Your task to perform on an android device: toggle notifications settings in the gmail app Image 0: 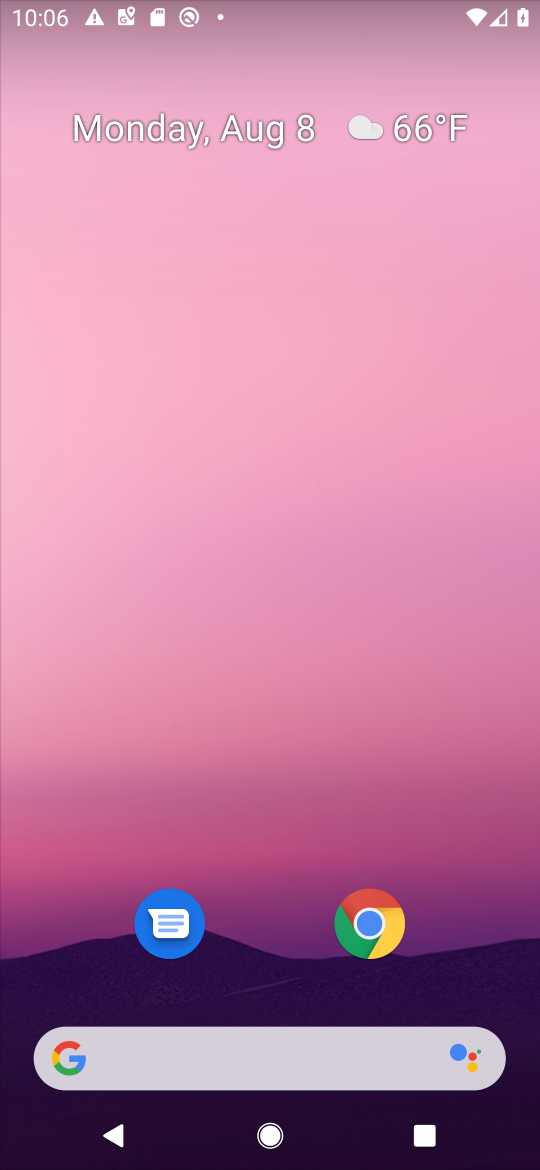
Step 0: drag from (31, 1117) to (295, 368)
Your task to perform on an android device: toggle notifications settings in the gmail app Image 1: 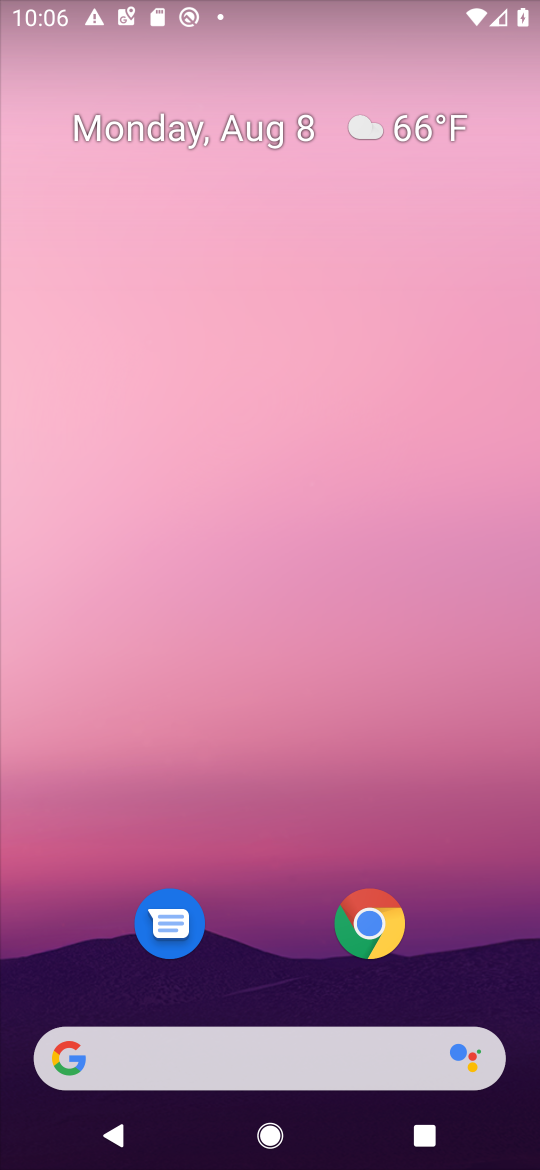
Step 1: drag from (59, 1093) to (255, 174)
Your task to perform on an android device: toggle notifications settings in the gmail app Image 2: 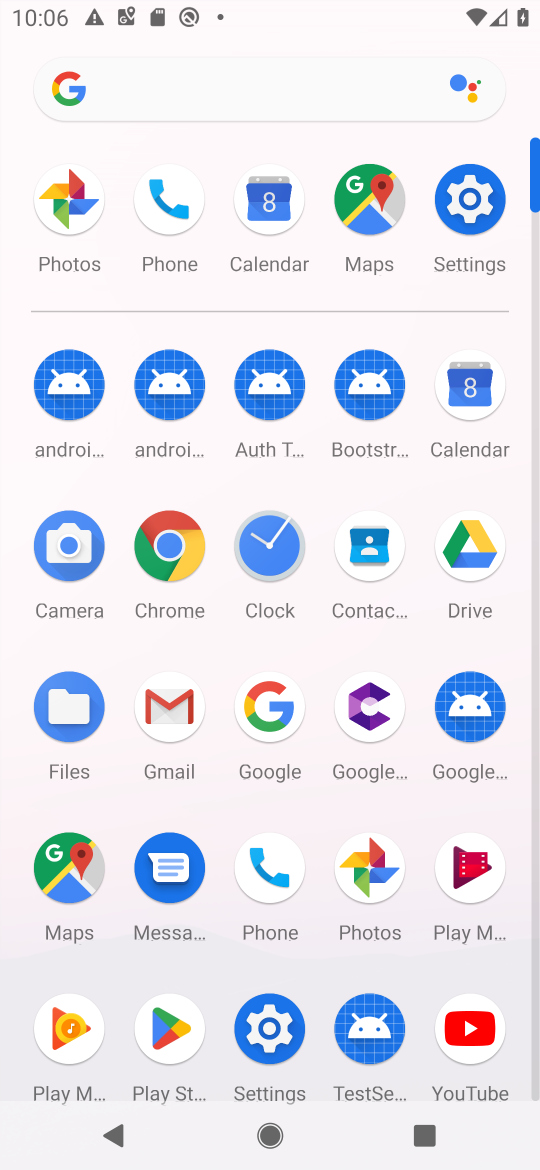
Step 2: click (185, 739)
Your task to perform on an android device: toggle notifications settings in the gmail app Image 3: 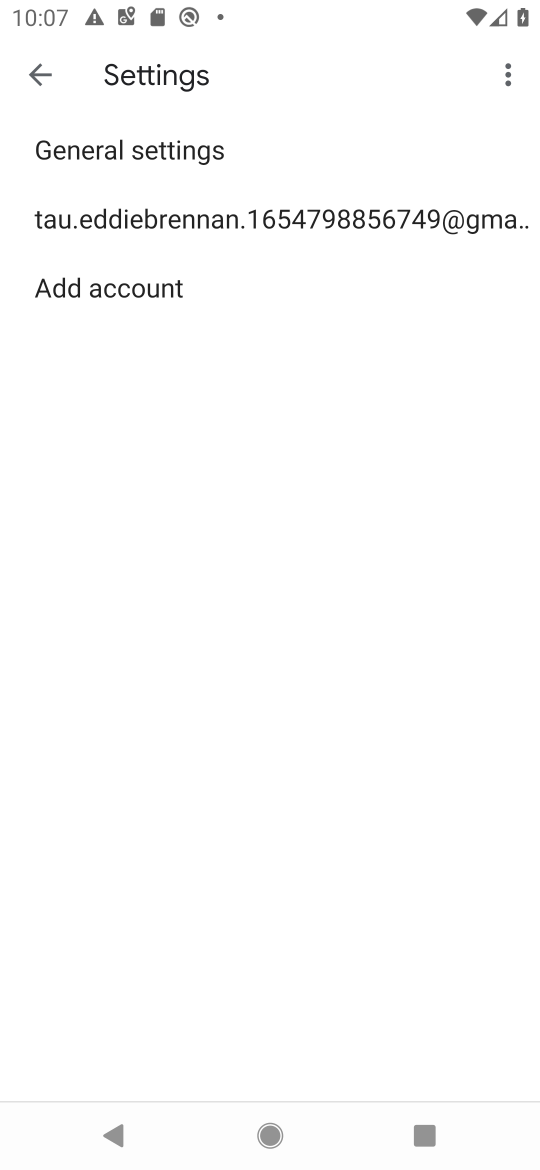
Step 3: click (96, 152)
Your task to perform on an android device: toggle notifications settings in the gmail app Image 4: 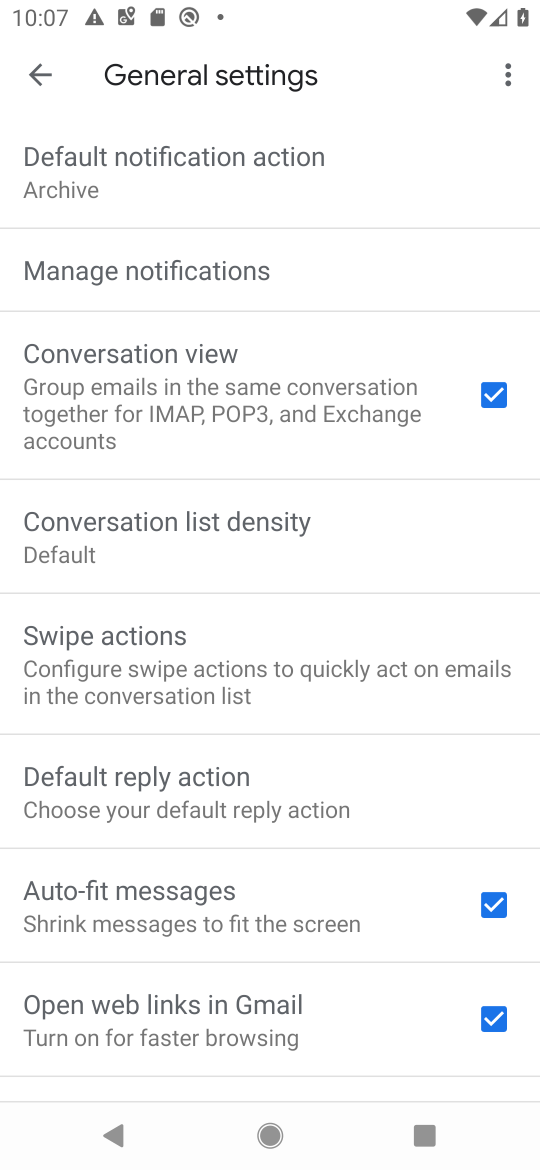
Step 4: click (172, 279)
Your task to perform on an android device: toggle notifications settings in the gmail app Image 5: 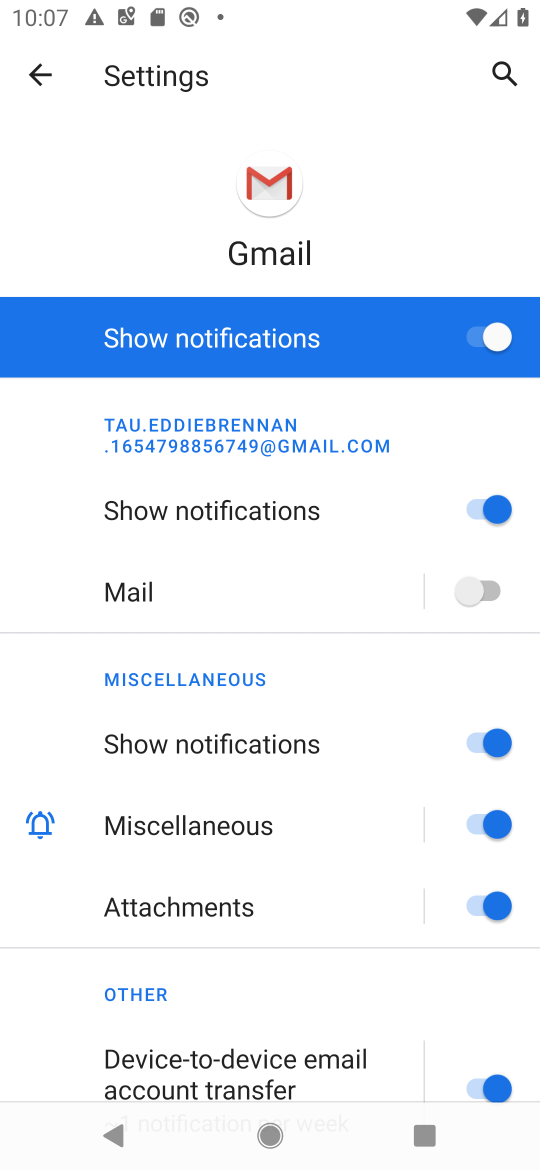
Step 5: click (481, 333)
Your task to perform on an android device: toggle notifications settings in the gmail app Image 6: 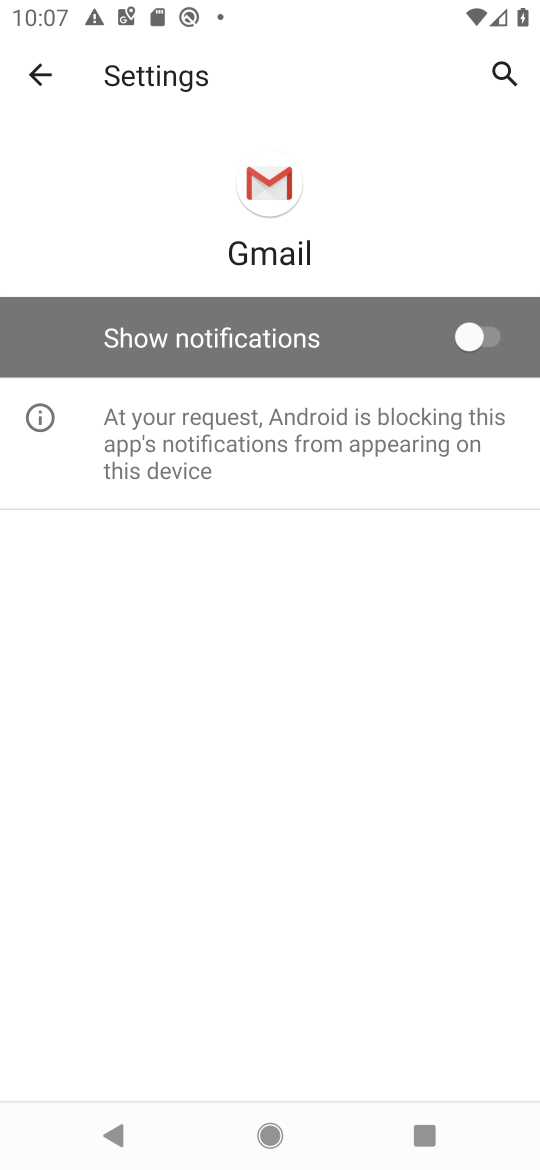
Step 6: task complete